Your task to perform on an android device: allow cookies in the chrome app Image 0: 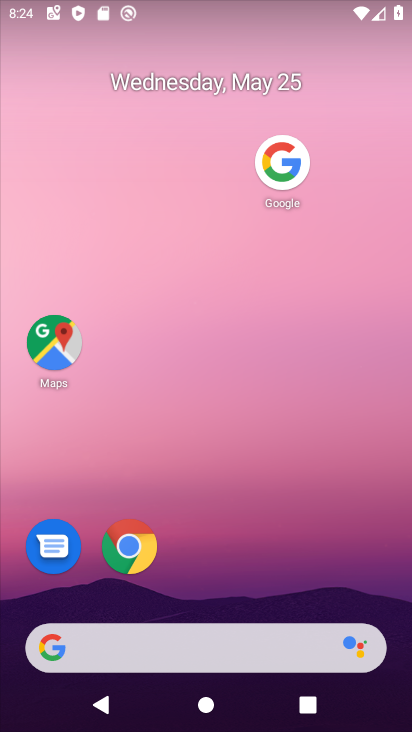
Step 0: click (132, 550)
Your task to perform on an android device: allow cookies in the chrome app Image 1: 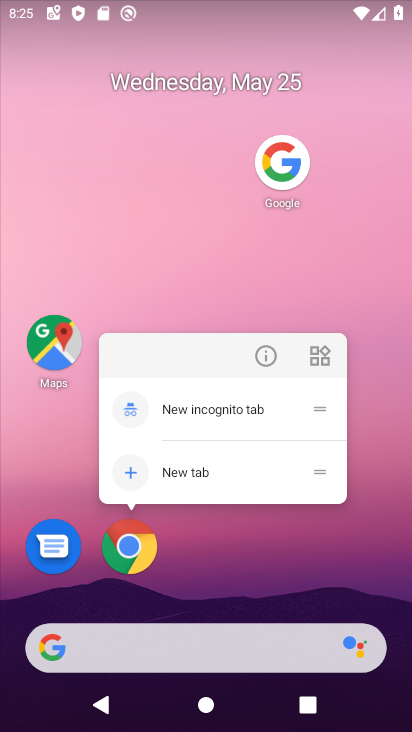
Step 1: click (131, 551)
Your task to perform on an android device: allow cookies in the chrome app Image 2: 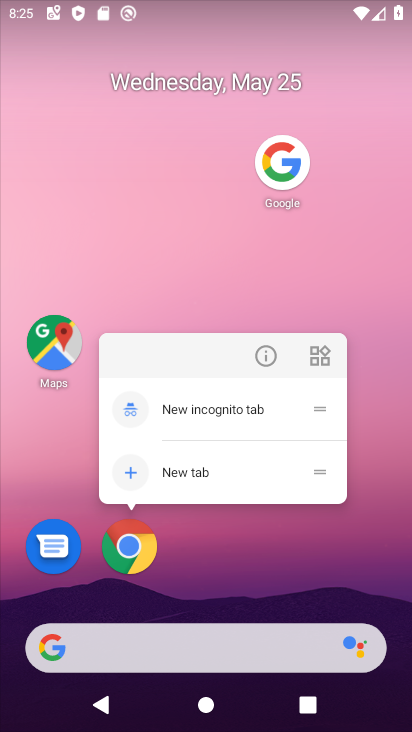
Step 2: click (130, 559)
Your task to perform on an android device: allow cookies in the chrome app Image 3: 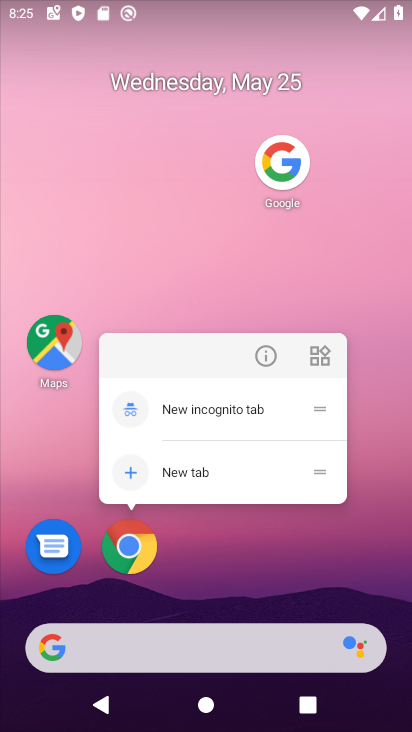
Step 3: click (131, 550)
Your task to perform on an android device: allow cookies in the chrome app Image 4: 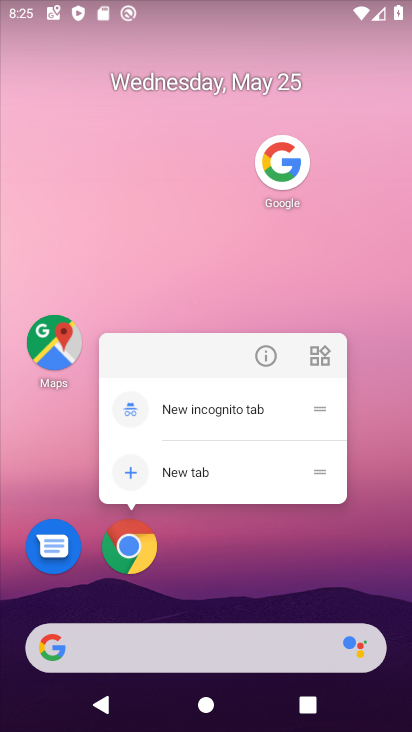
Step 4: click (129, 554)
Your task to perform on an android device: allow cookies in the chrome app Image 5: 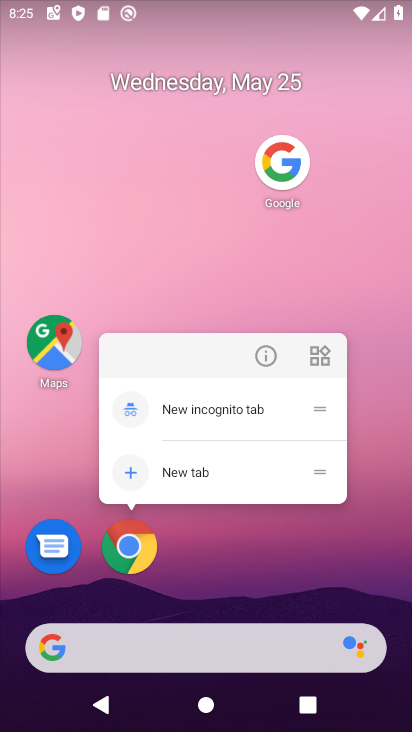
Step 5: click (132, 561)
Your task to perform on an android device: allow cookies in the chrome app Image 6: 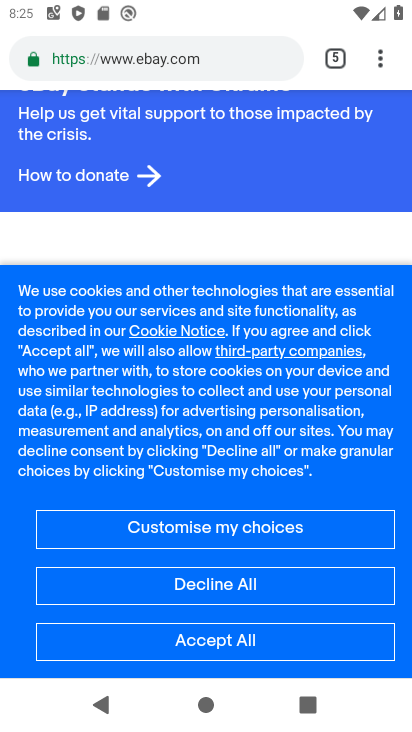
Step 6: drag from (383, 55) to (229, 583)
Your task to perform on an android device: allow cookies in the chrome app Image 7: 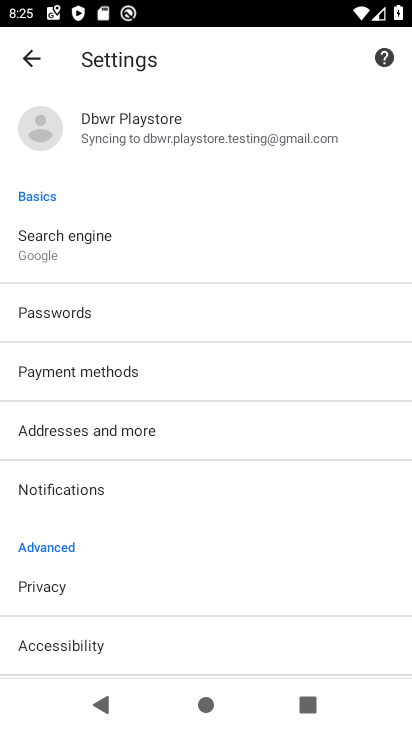
Step 7: drag from (151, 640) to (225, 242)
Your task to perform on an android device: allow cookies in the chrome app Image 8: 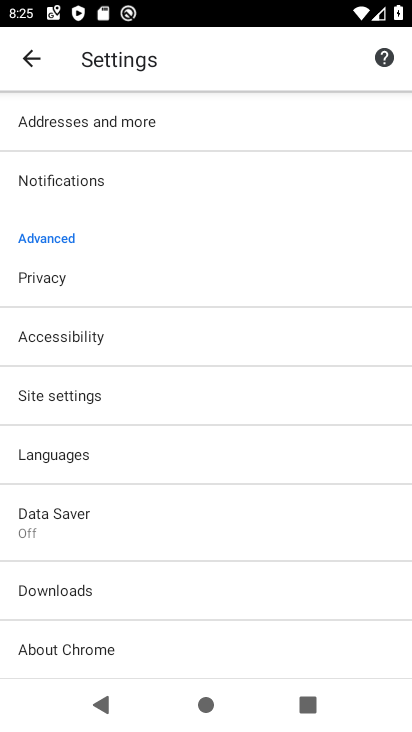
Step 8: click (88, 400)
Your task to perform on an android device: allow cookies in the chrome app Image 9: 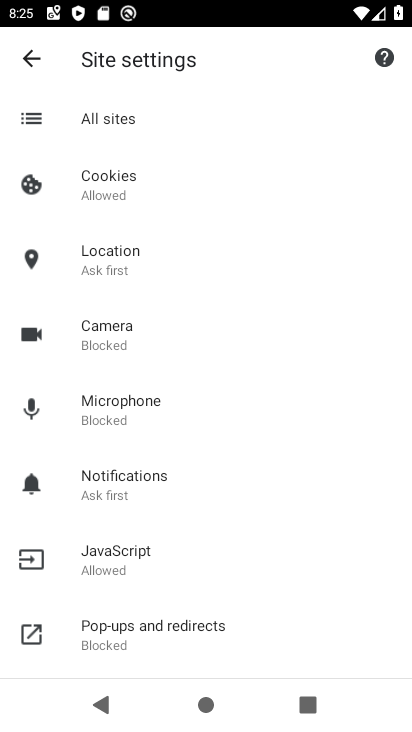
Step 9: click (119, 188)
Your task to perform on an android device: allow cookies in the chrome app Image 10: 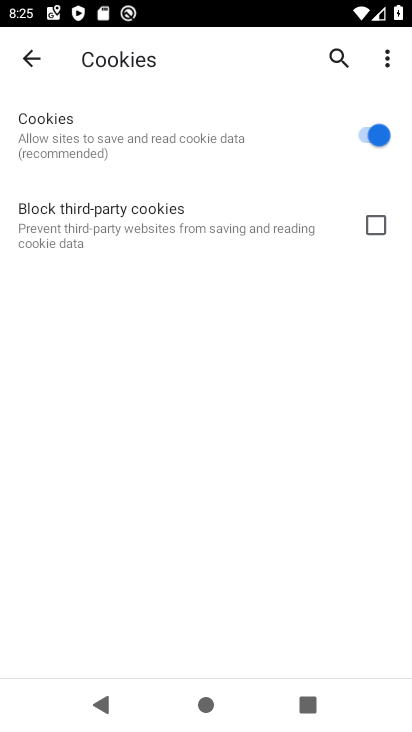
Step 10: task complete